Your task to perform on an android device: Open the calendar and show me this week's events? Image 0: 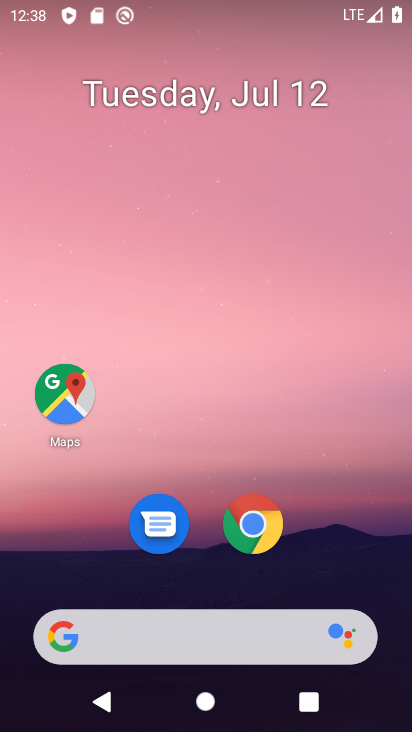
Step 0: drag from (214, 438) to (175, 26)
Your task to perform on an android device: Open the calendar and show me this week's events? Image 1: 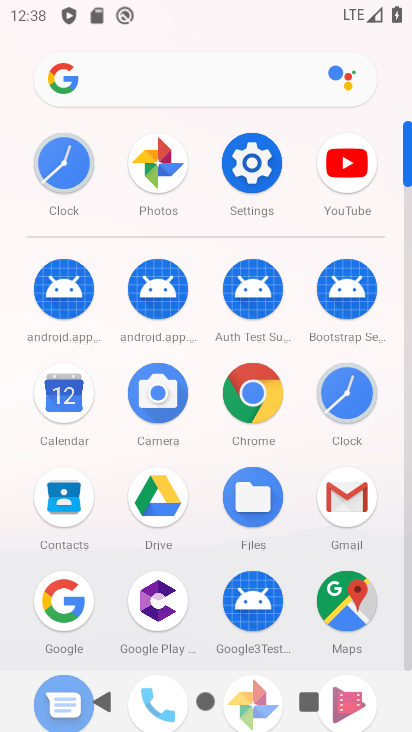
Step 1: click (71, 393)
Your task to perform on an android device: Open the calendar and show me this week's events? Image 2: 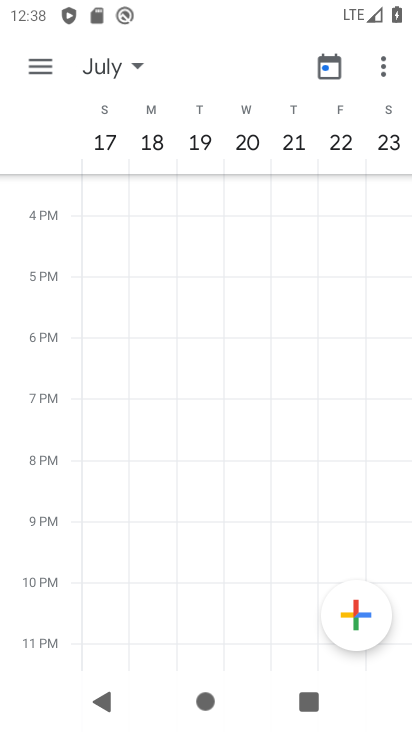
Step 2: task complete